Your task to perform on an android device: Go to display settings Image 0: 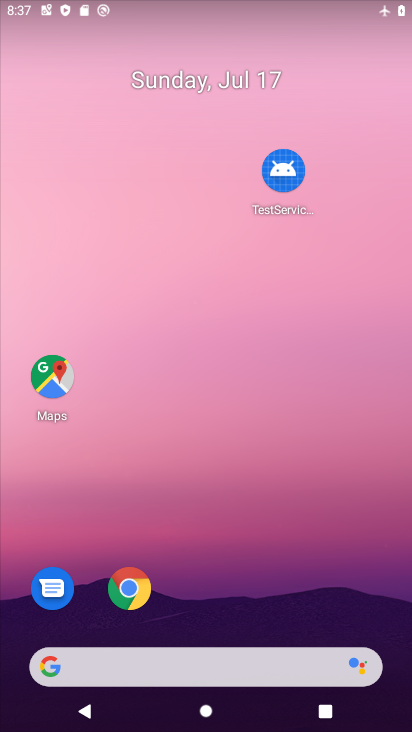
Step 0: drag from (136, 654) to (214, 71)
Your task to perform on an android device: Go to display settings Image 1: 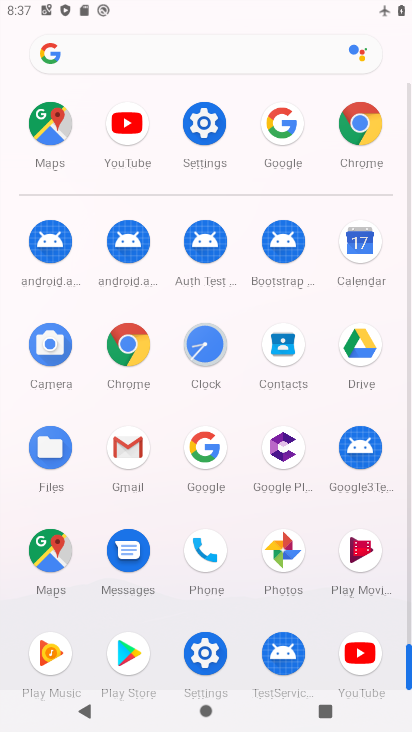
Step 1: click (212, 132)
Your task to perform on an android device: Go to display settings Image 2: 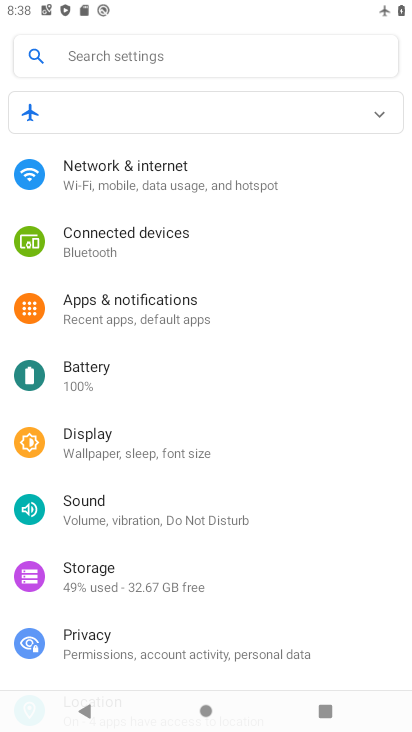
Step 2: click (144, 445)
Your task to perform on an android device: Go to display settings Image 3: 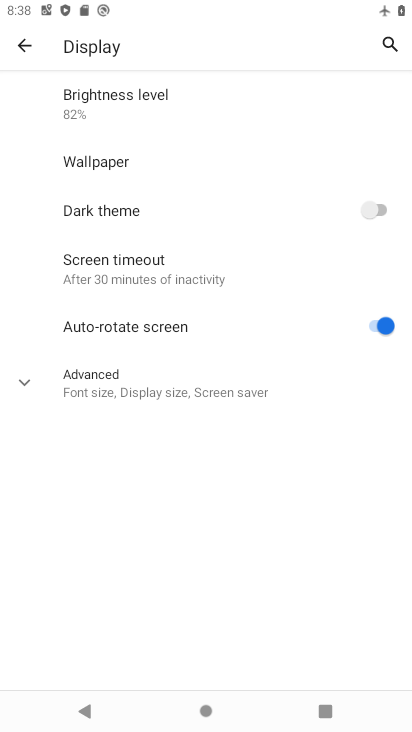
Step 3: task complete